Your task to perform on an android device: Show me the alarms in the clock app Image 0: 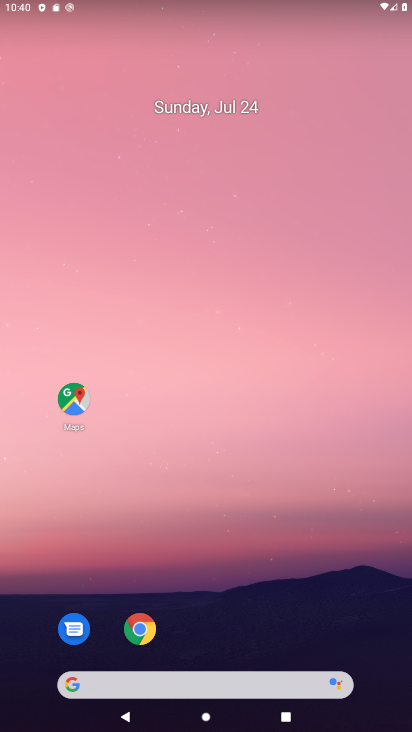
Step 0: drag from (289, 608) to (271, 220)
Your task to perform on an android device: Show me the alarms in the clock app Image 1: 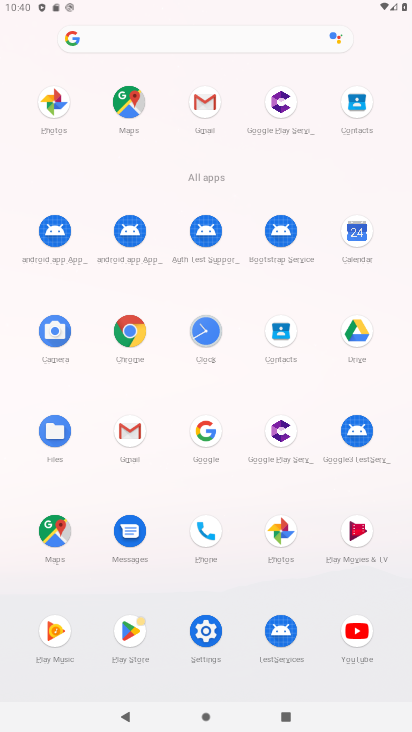
Step 1: click (200, 330)
Your task to perform on an android device: Show me the alarms in the clock app Image 2: 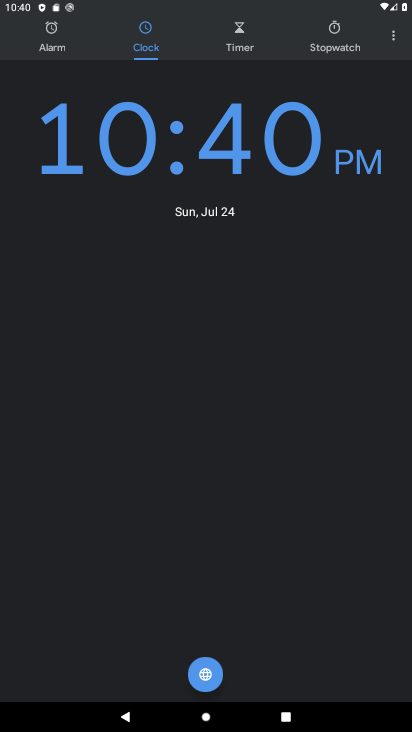
Step 2: click (48, 49)
Your task to perform on an android device: Show me the alarms in the clock app Image 3: 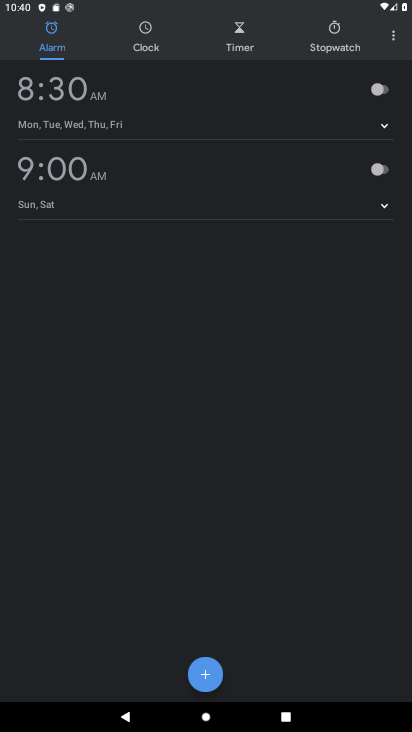
Step 3: task complete